Your task to perform on an android device: change the upload size in google photos Image 0: 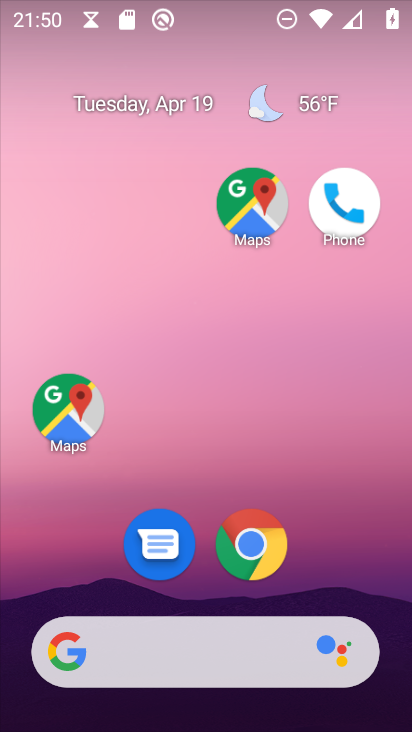
Step 0: drag from (221, 660) to (411, 323)
Your task to perform on an android device: change the upload size in google photos Image 1: 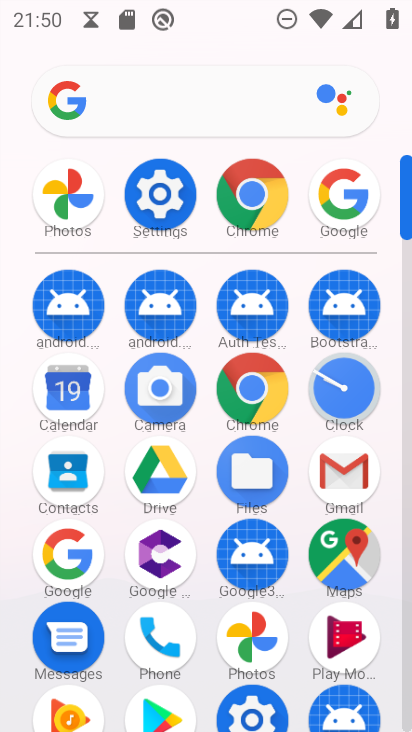
Step 1: click (255, 639)
Your task to perform on an android device: change the upload size in google photos Image 2: 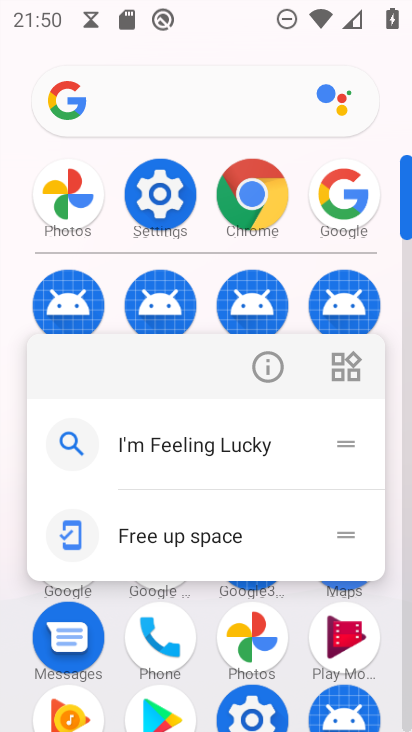
Step 2: click (256, 632)
Your task to perform on an android device: change the upload size in google photos Image 3: 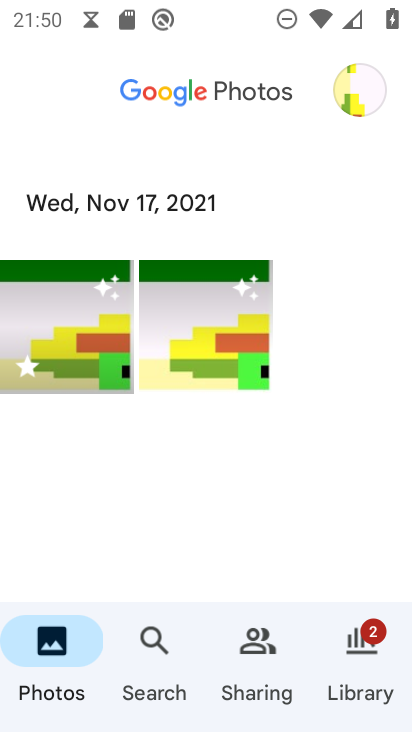
Step 3: click (363, 104)
Your task to perform on an android device: change the upload size in google photos Image 4: 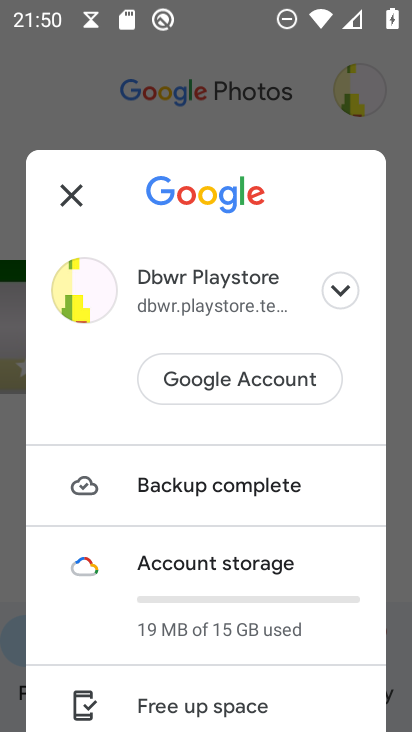
Step 4: drag from (208, 671) to (229, 306)
Your task to perform on an android device: change the upload size in google photos Image 5: 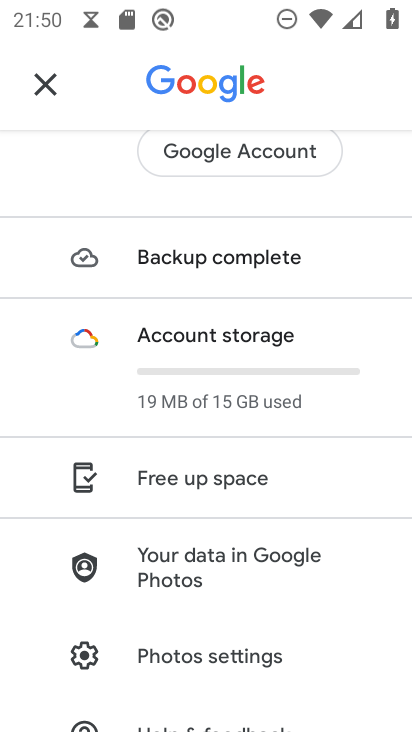
Step 5: click (229, 653)
Your task to perform on an android device: change the upload size in google photos Image 6: 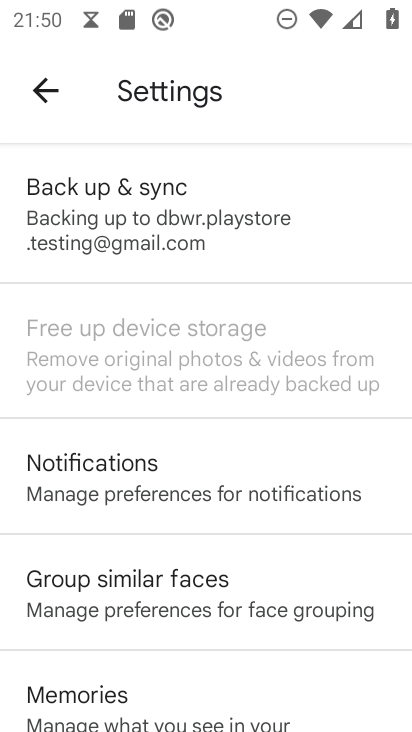
Step 6: click (180, 230)
Your task to perform on an android device: change the upload size in google photos Image 7: 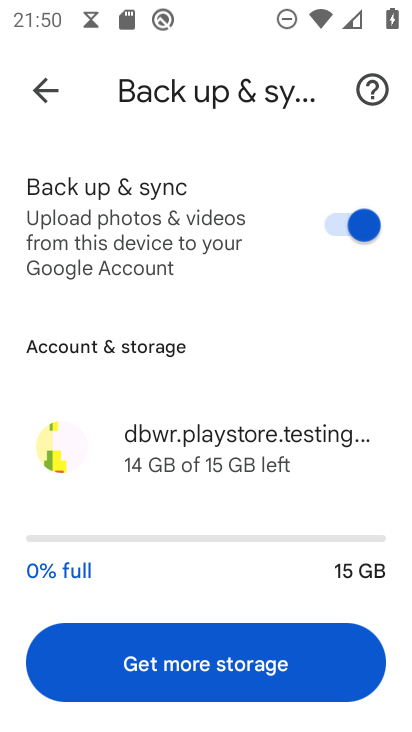
Step 7: drag from (116, 510) to (265, 103)
Your task to perform on an android device: change the upload size in google photos Image 8: 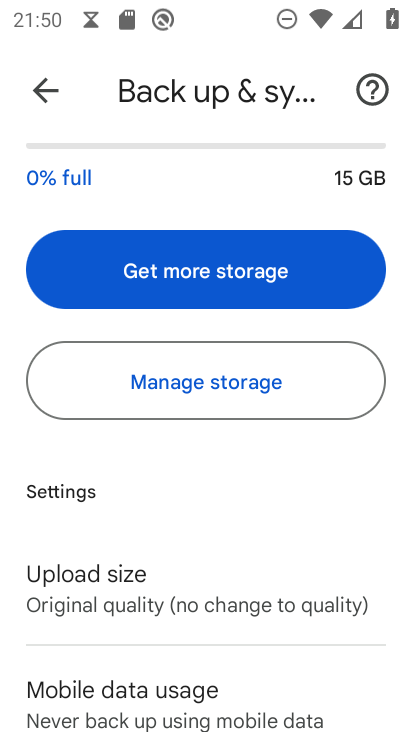
Step 8: drag from (182, 528) to (295, 224)
Your task to perform on an android device: change the upload size in google photos Image 9: 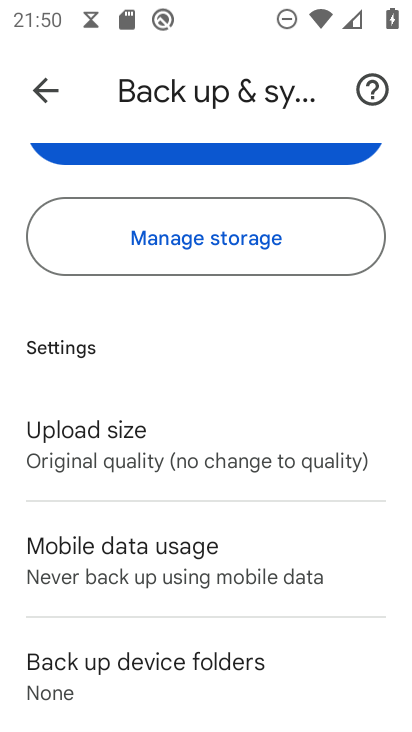
Step 9: click (126, 453)
Your task to perform on an android device: change the upload size in google photos Image 10: 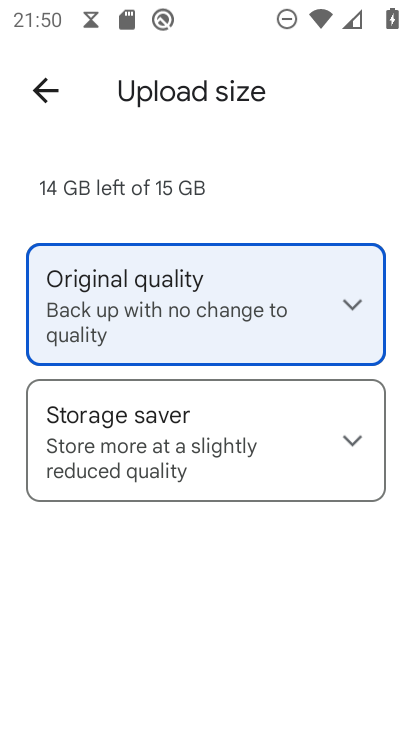
Step 10: click (151, 449)
Your task to perform on an android device: change the upload size in google photos Image 11: 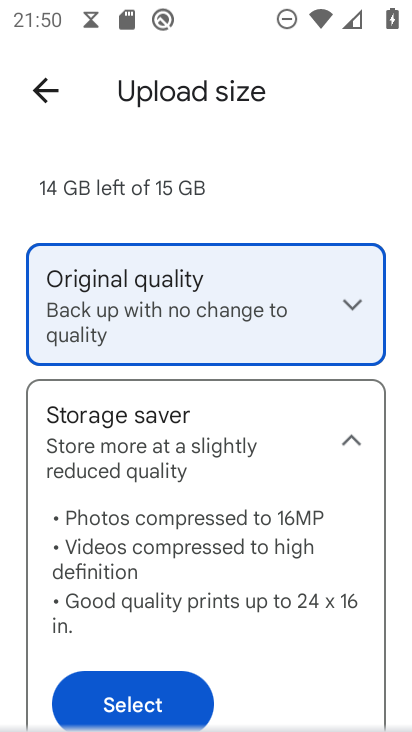
Step 11: click (125, 696)
Your task to perform on an android device: change the upload size in google photos Image 12: 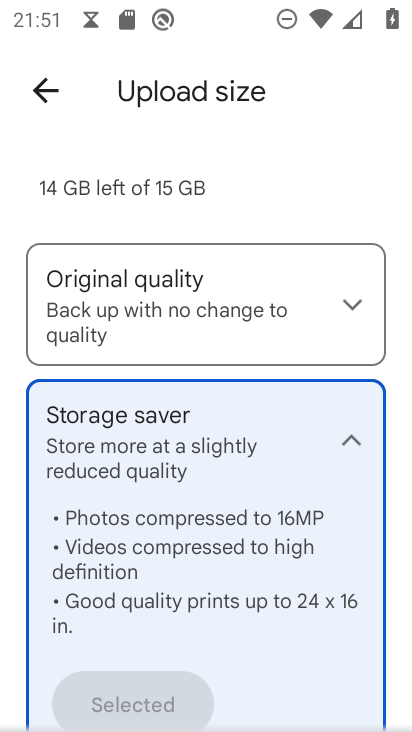
Step 12: task complete